Your task to perform on an android device: Open Google Chrome and open the bookmarks view Image 0: 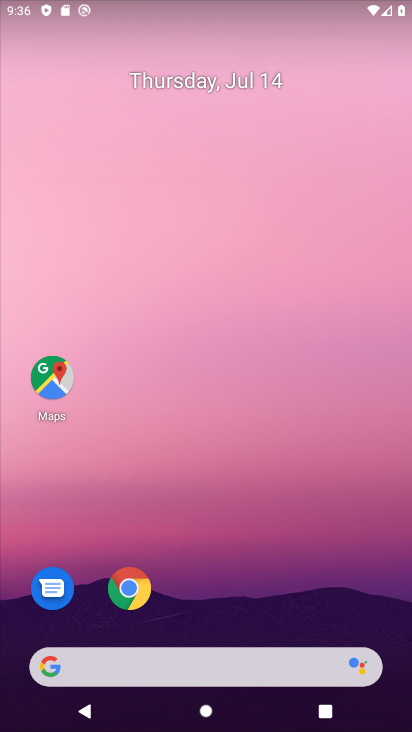
Step 0: click (144, 592)
Your task to perform on an android device: Open Google Chrome and open the bookmarks view Image 1: 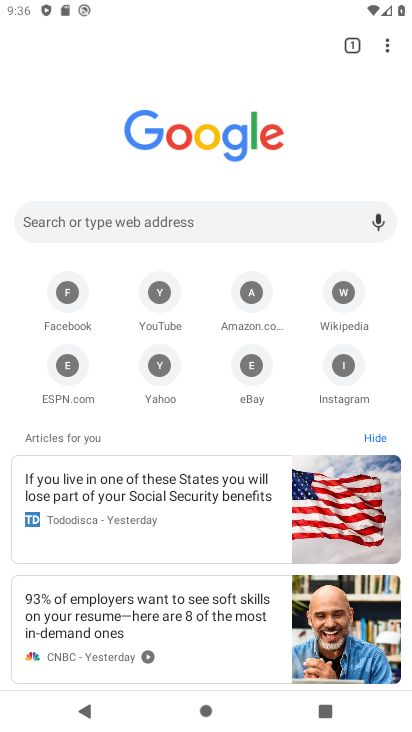
Step 1: task complete